Your task to perform on an android device: make emails show in primary in the gmail app Image 0: 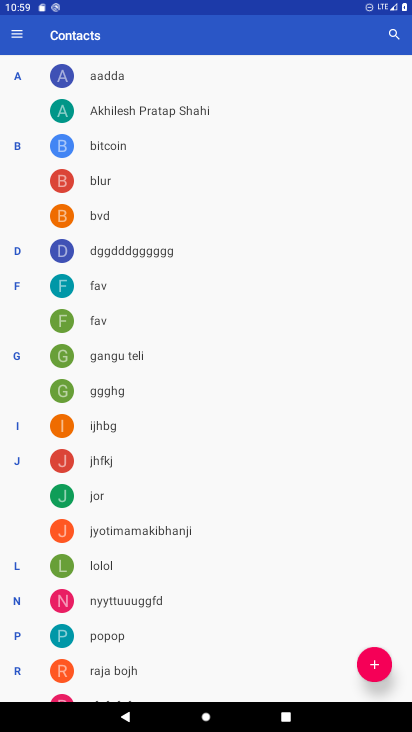
Step 0: press home button
Your task to perform on an android device: make emails show in primary in the gmail app Image 1: 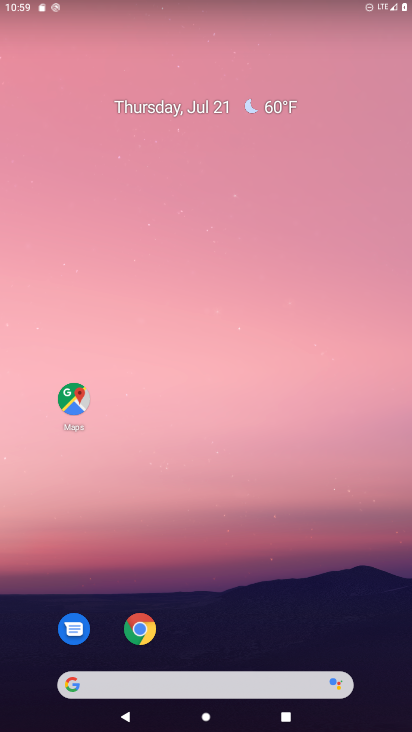
Step 1: drag from (260, 595) to (212, 111)
Your task to perform on an android device: make emails show in primary in the gmail app Image 2: 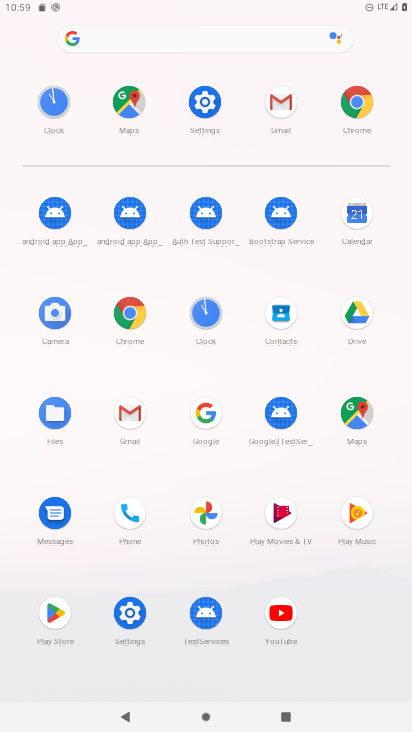
Step 2: click (276, 94)
Your task to perform on an android device: make emails show in primary in the gmail app Image 3: 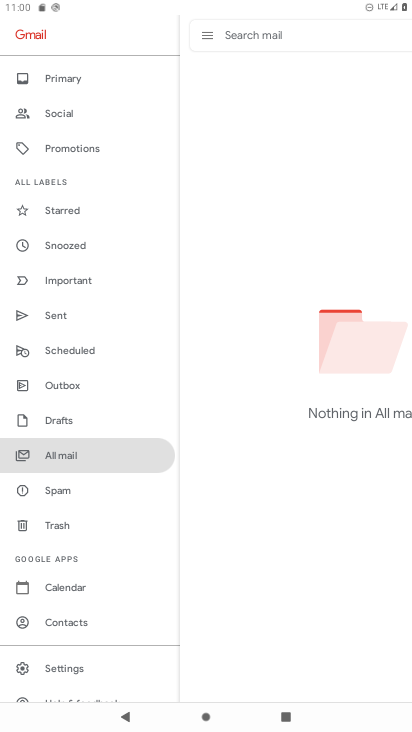
Step 3: click (65, 664)
Your task to perform on an android device: make emails show in primary in the gmail app Image 4: 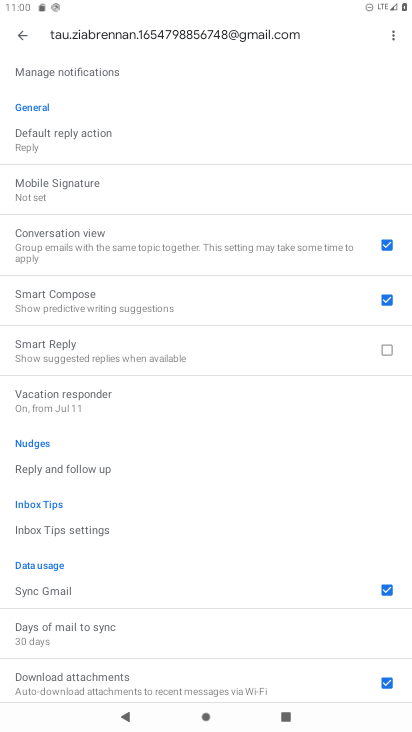
Step 4: drag from (110, 106) to (123, 683)
Your task to perform on an android device: make emails show in primary in the gmail app Image 5: 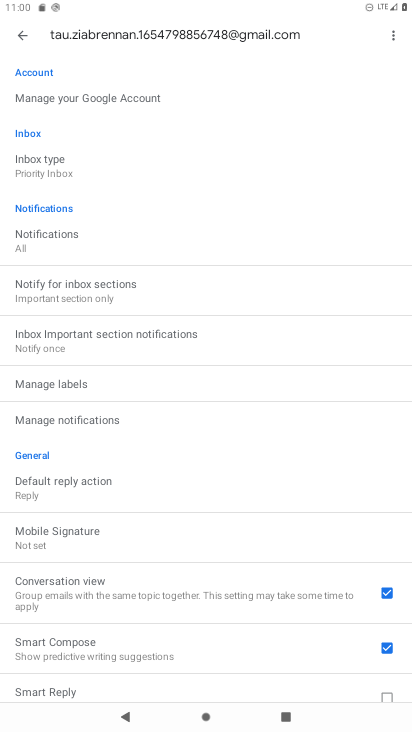
Step 5: click (50, 171)
Your task to perform on an android device: make emails show in primary in the gmail app Image 6: 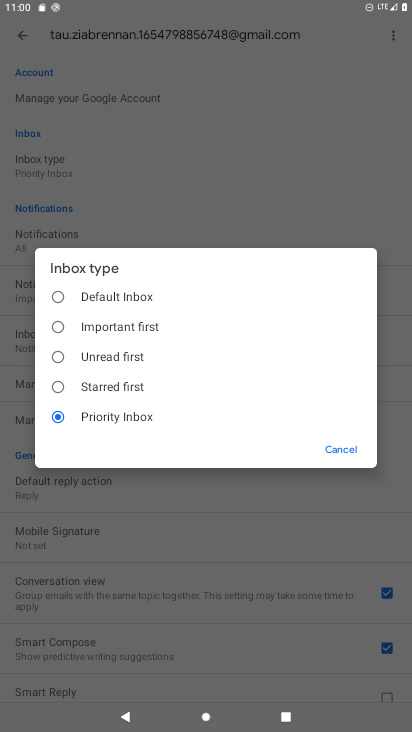
Step 6: click (54, 299)
Your task to perform on an android device: make emails show in primary in the gmail app Image 7: 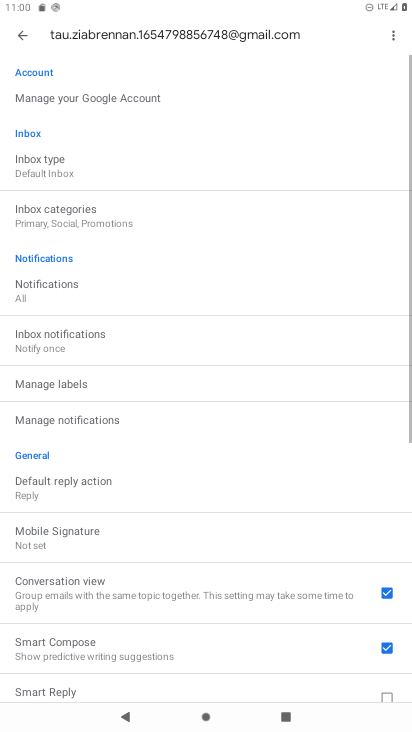
Step 7: click (46, 215)
Your task to perform on an android device: make emails show in primary in the gmail app Image 8: 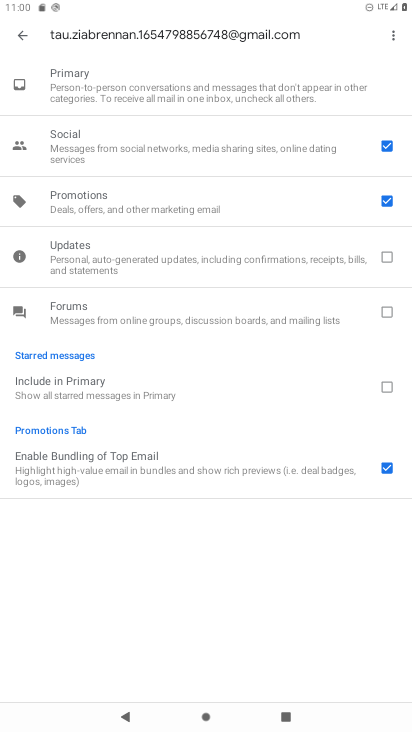
Step 8: click (390, 140)
Your task to perform on an android device: make emails show in primary in the gmail app Image 9: 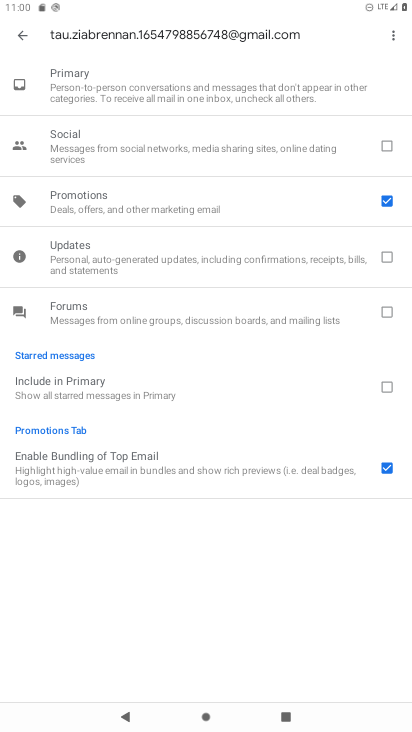
Step 9: click (379, 198)
Your task to perform on an android device: make emails show in primary in the gmail app Image 10: 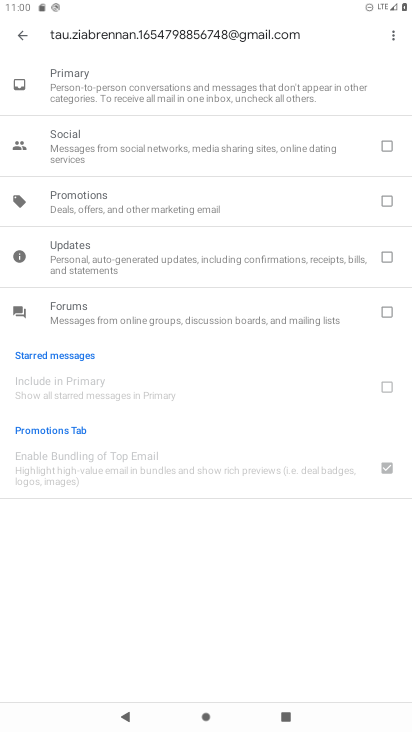
Step 10: click (388, 29)
Your task to perform on an android device: make emails show in primary in the gmail app Image 11: 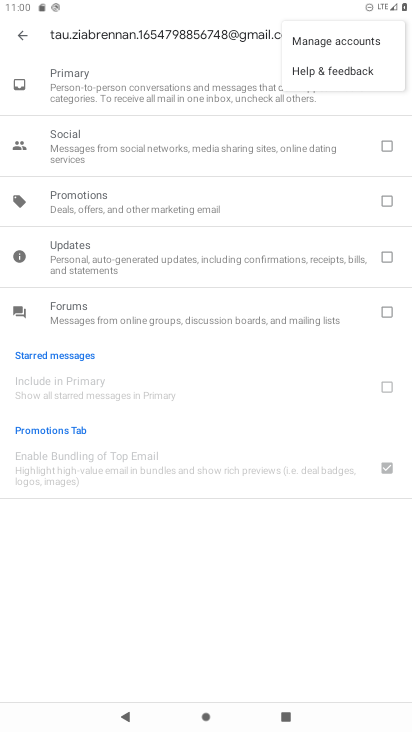
Step 11: task complete